Your task to perform on an android device: Go to privacy settings Image 0: 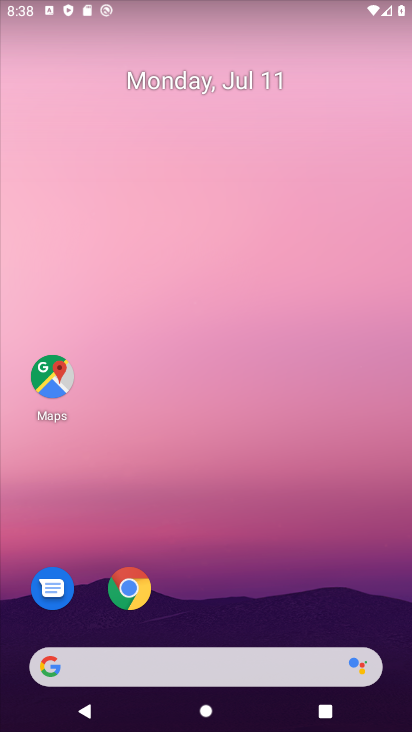
Step 0: drag from (398, 677) to (328, 76)
Your task to perform on an android device: Go to privacy settings Image 1: 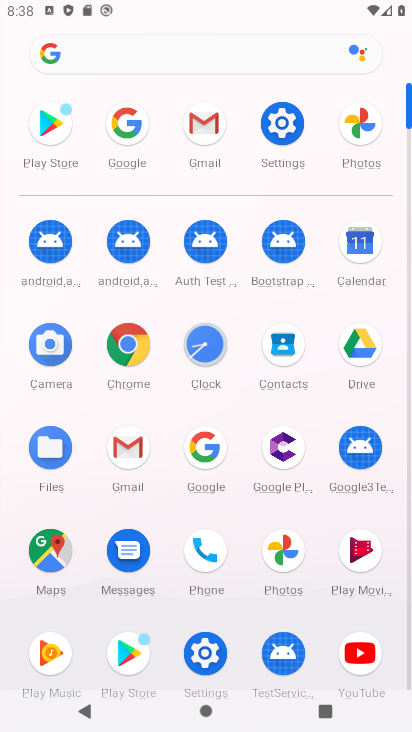
Step 1: click (296, 119)
Your task to perform on an android device: Go to privacy settings Image 2: 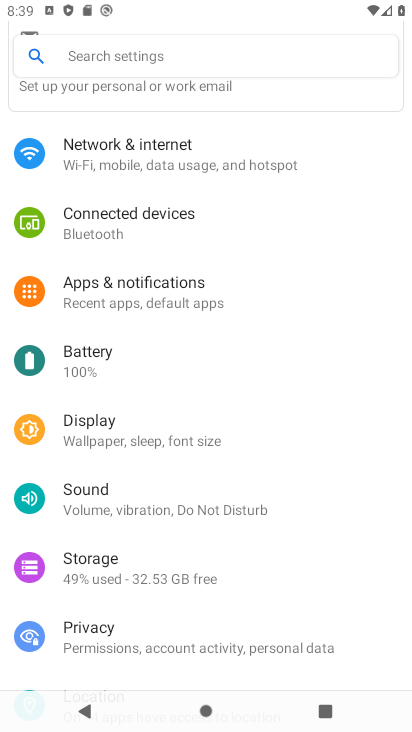
Step 2: click (122, 636)
Your task to perform on an android device: Go to privacy settings Image 3: 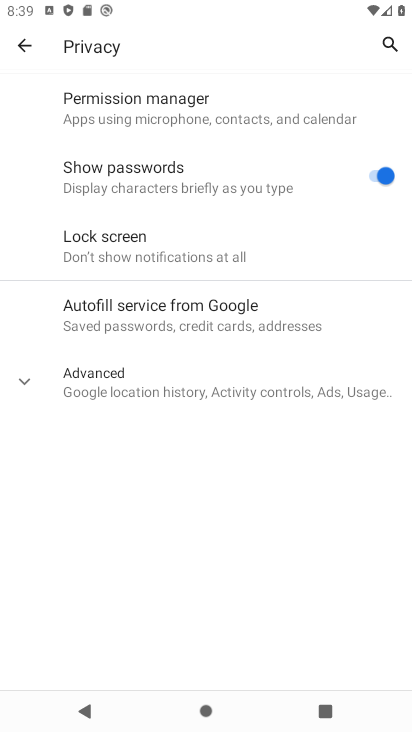
Step 3: task complete